Your task to perform on an android device: uninstall "Skype" Image 0: 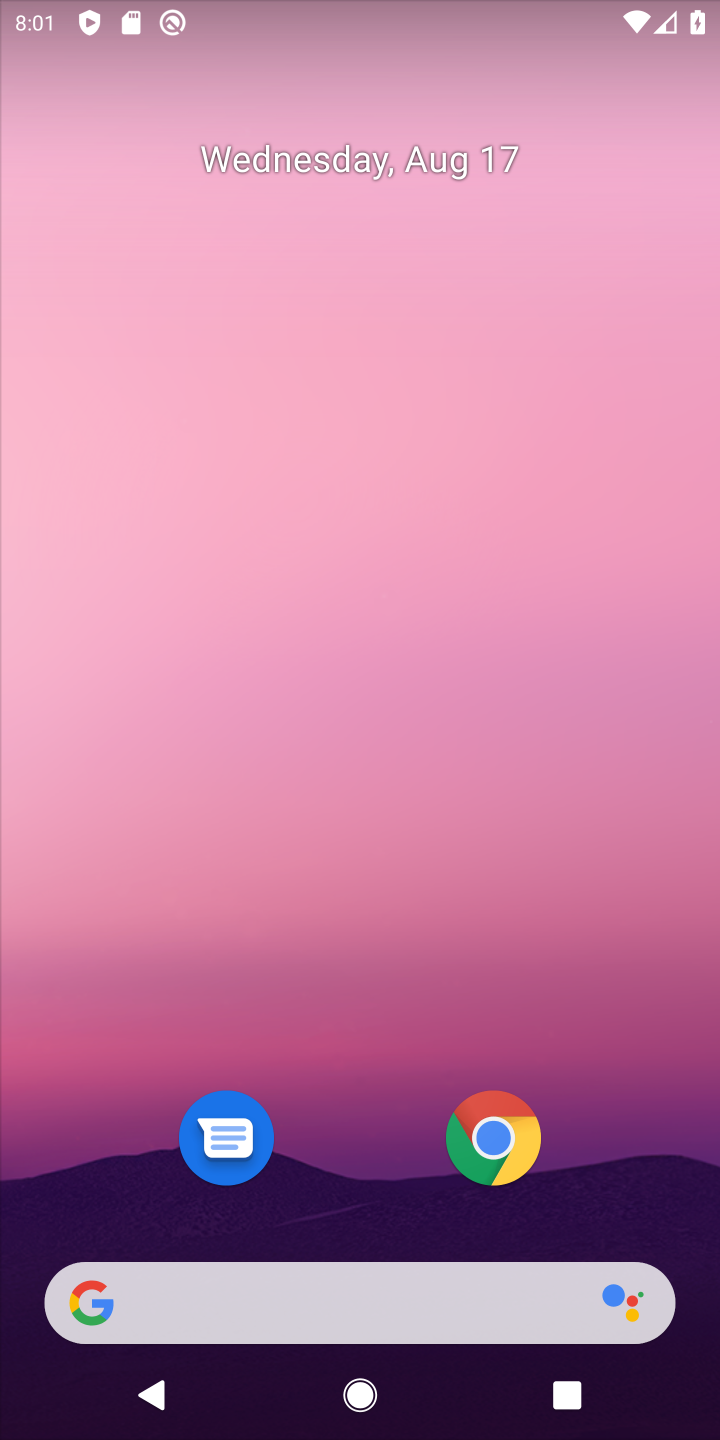
Step 0: drag from (346, 1186) to (344, 379)
Your task to perform on an android device: uninstall "Skype" Image 1: 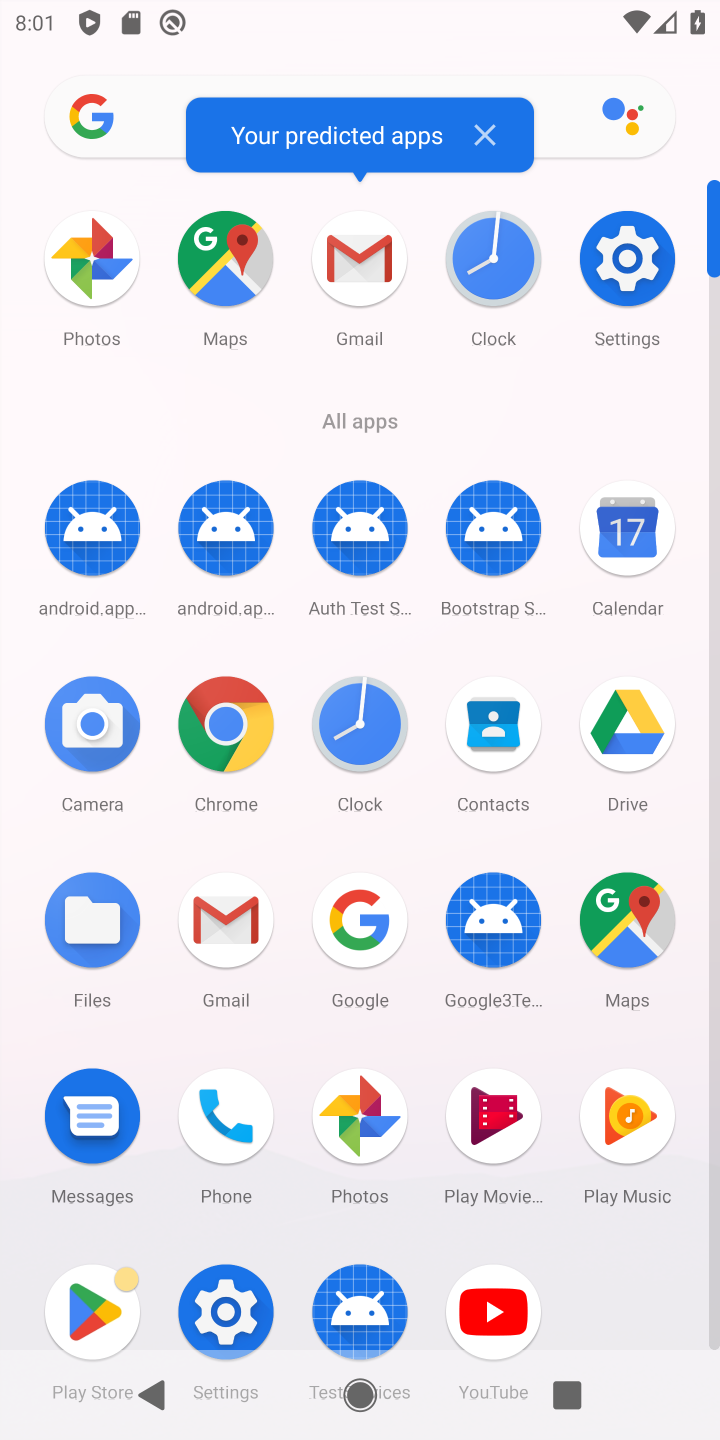
Step 1: click (86, 1289)
Your task to perform on an android device: uninstall "Skype" Image 2: 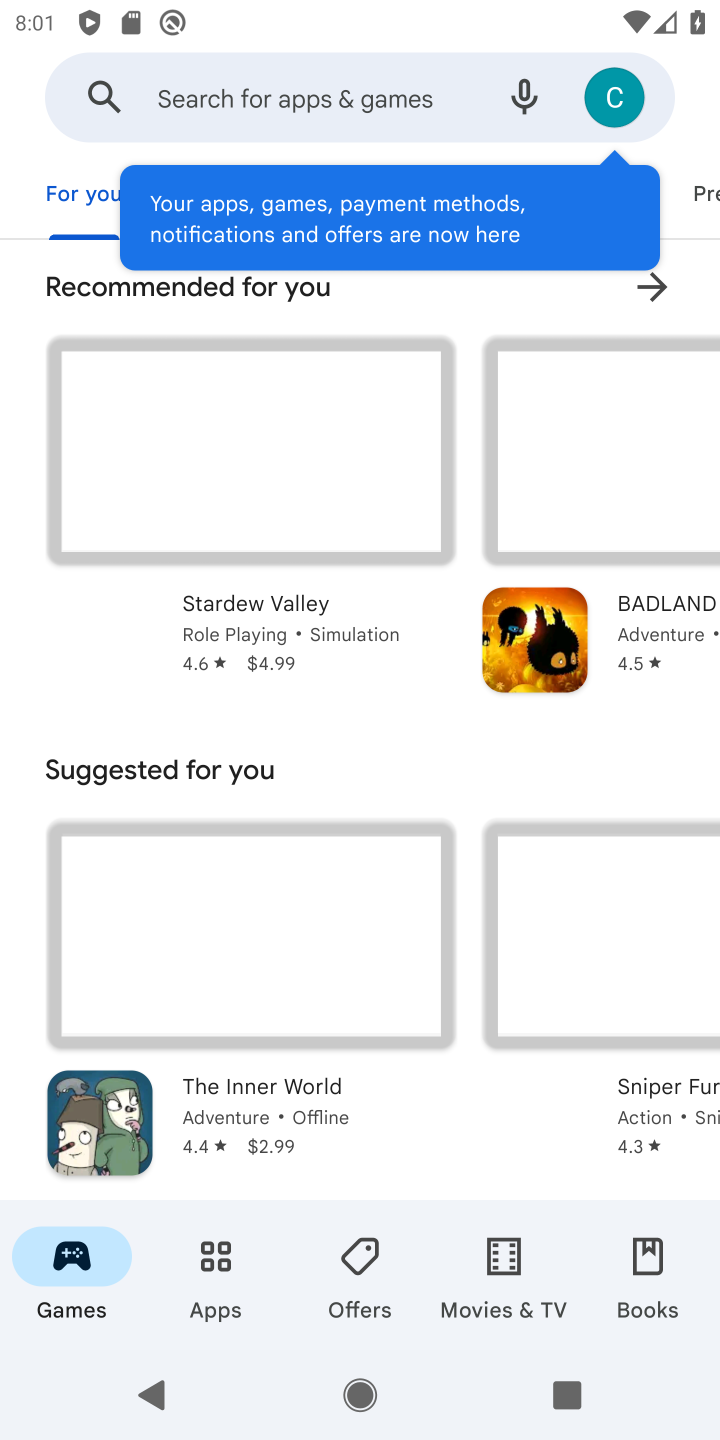
Step 2: click (299, 87)
Your task to perform on an android device: uninstall "Skype" Image 3: 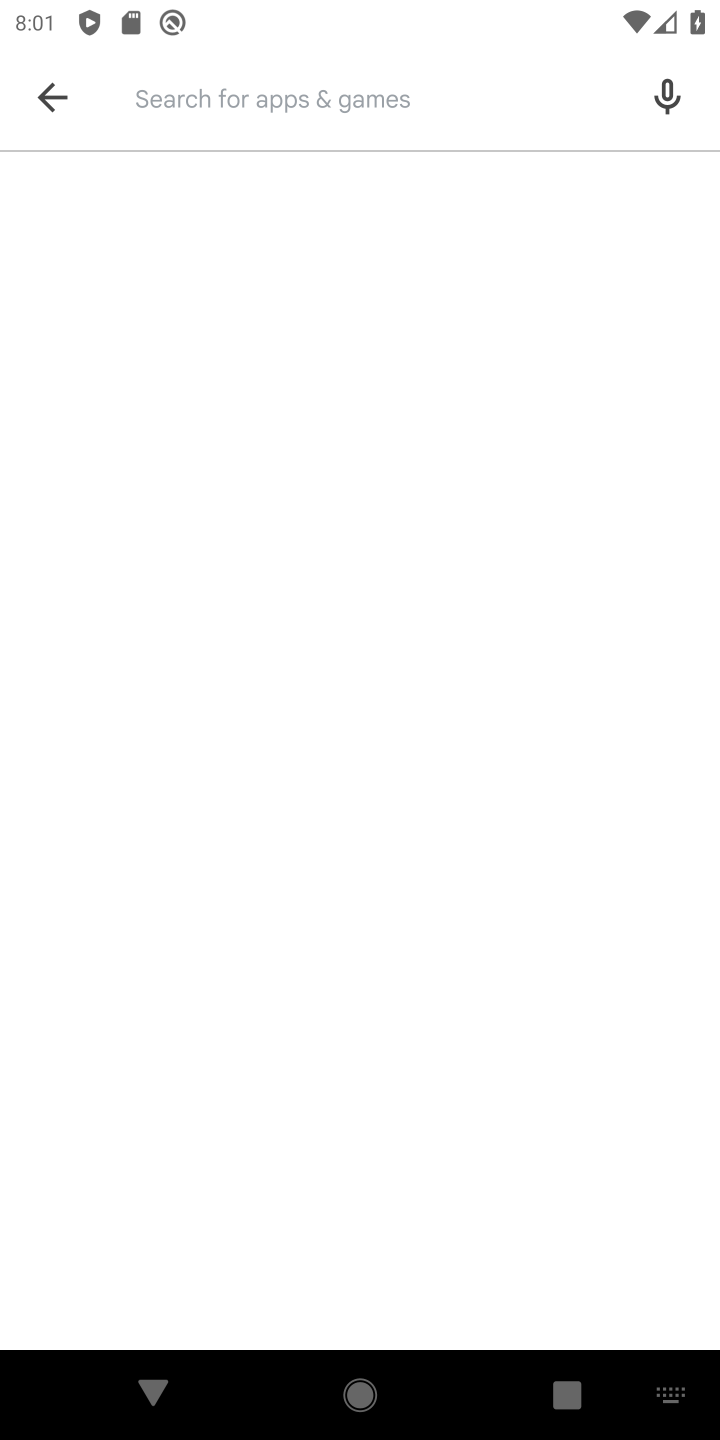
Step 3: type "skype"
Your task to perform on an android device: uninstall "Skype" Image 4: 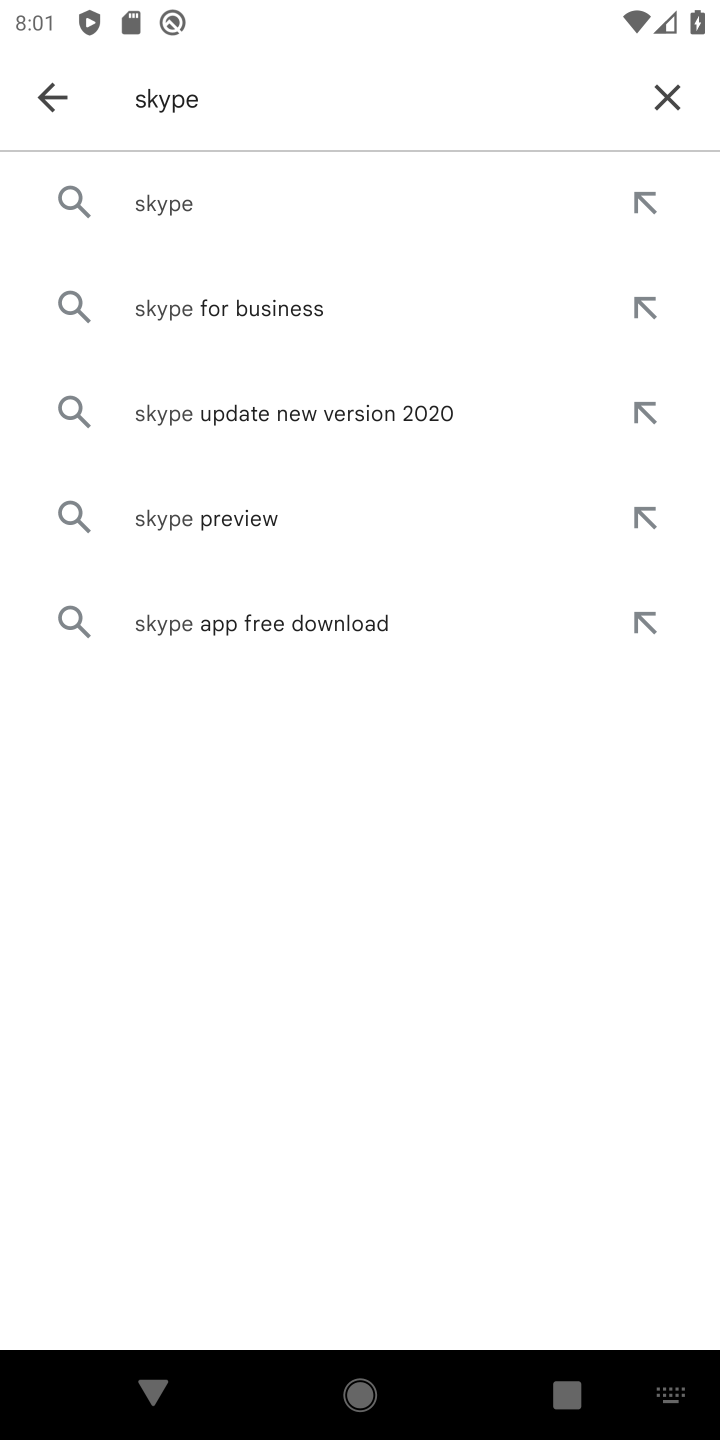
Step 4: click (212, 212)
Your task to perform on an android device: uninstall "Skype" Image 5: 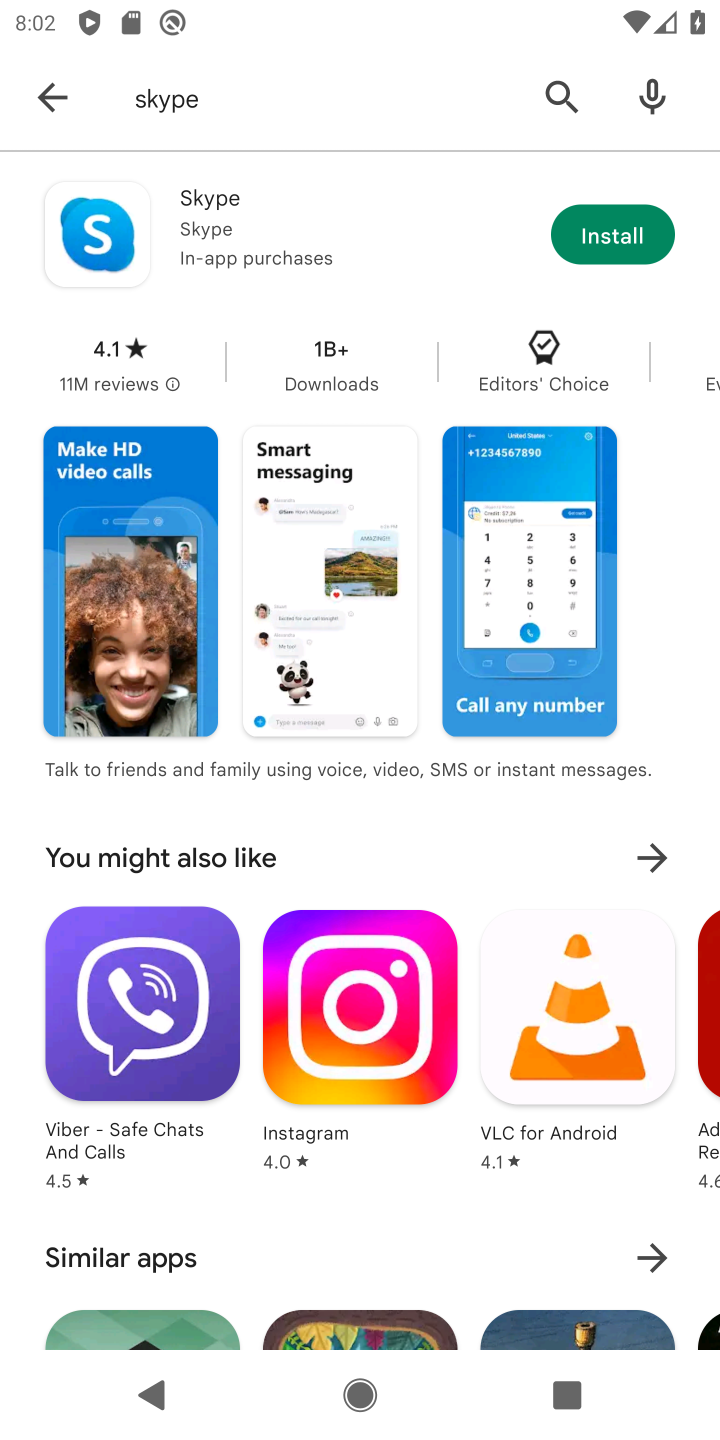
Step 5: task complete